Your task to perform on an android device: Show me productivity apps on the Play Store Image 0: 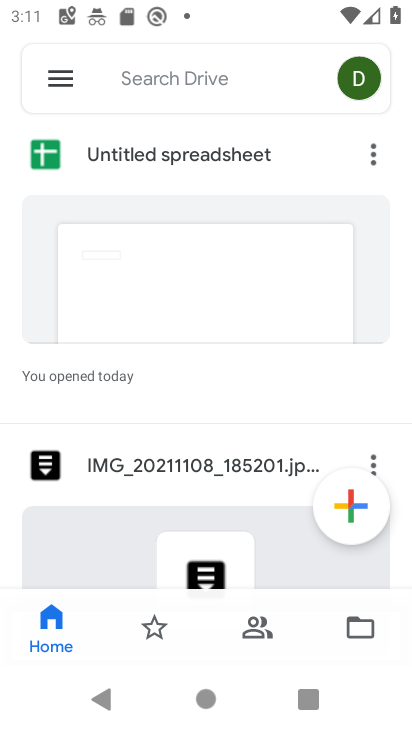
Step 0: press back button
Your task to perform on an android device: Show me productivity apps on the Play Store Image 1: 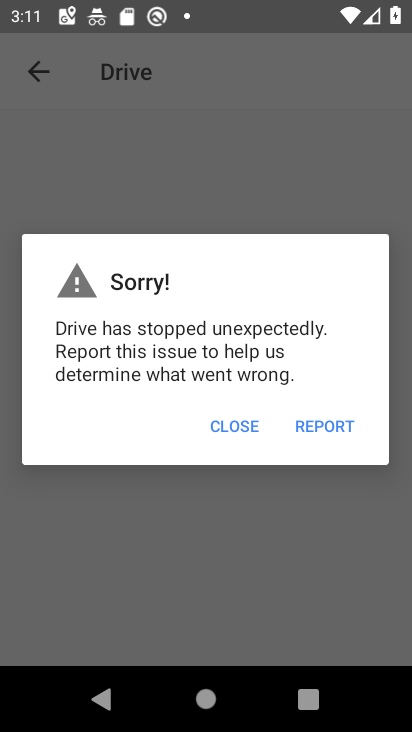
Step 1: press home button
Your task to perform on an android device: Show me productivity apps on the Play Store Image 2: 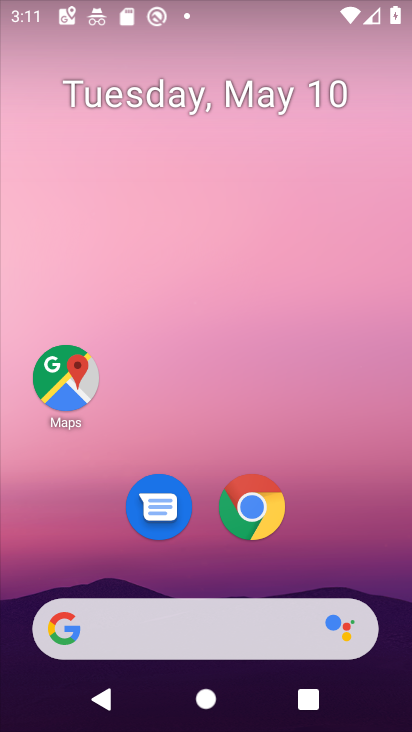
Step 2: drag from (163, 578) to (178, 222)
Your task to perform on an android device: Show me productivity apps on the Play Store Image 3: 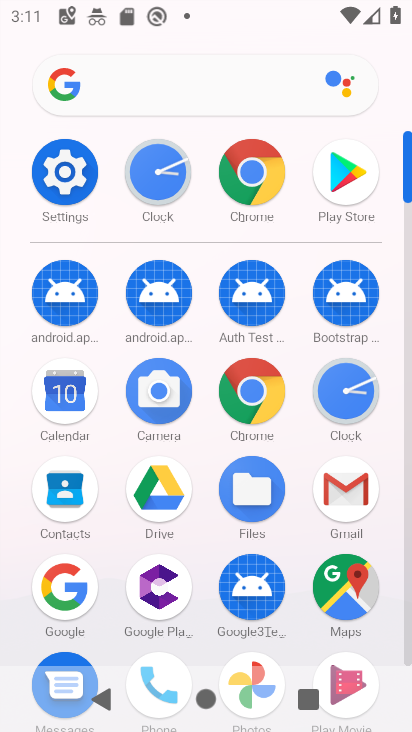
Step 3: drag from (200, 553) to (181, 293)
Your task to perform on an android device: Show me productivity apps on the Play Store Image 4: 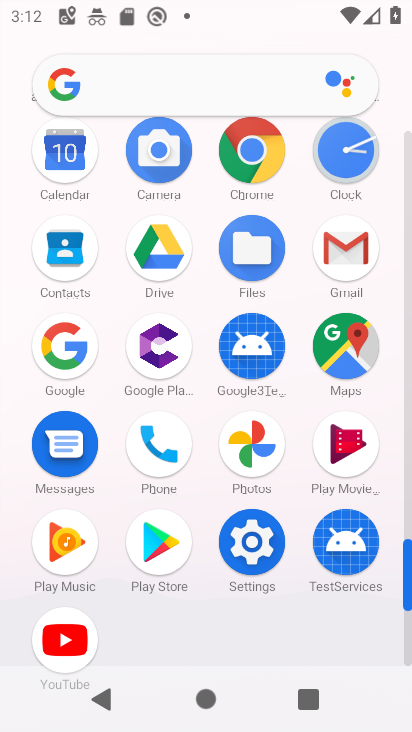
Step 4: click (156, 545)
Your task to perform on an android device: Show me productivity apps on the Play Store Image 5: 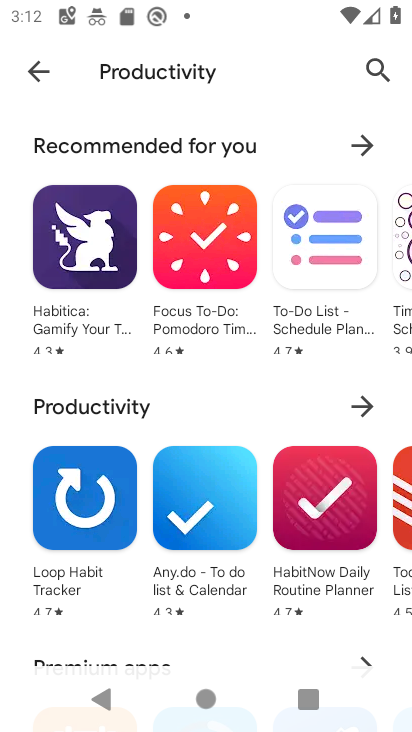
Step 5: click (34, 69)
Your task to perform on an android device: Show me productivity apps on the Play Store Image 6: 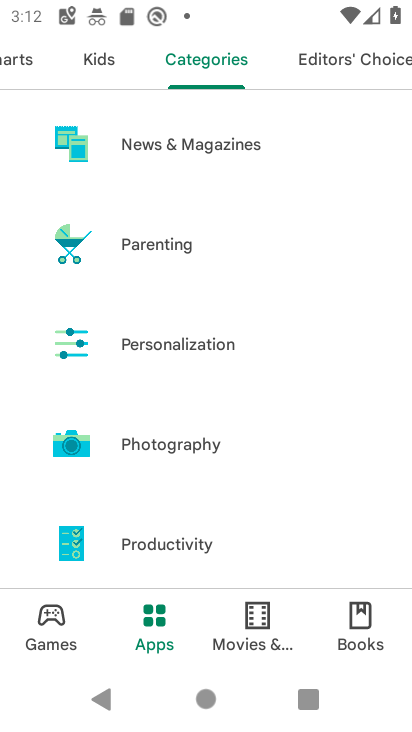
Step 6: click (177, 544)
Your task to perform on an android device: Show me productivity apps on the Play Store Image 7: 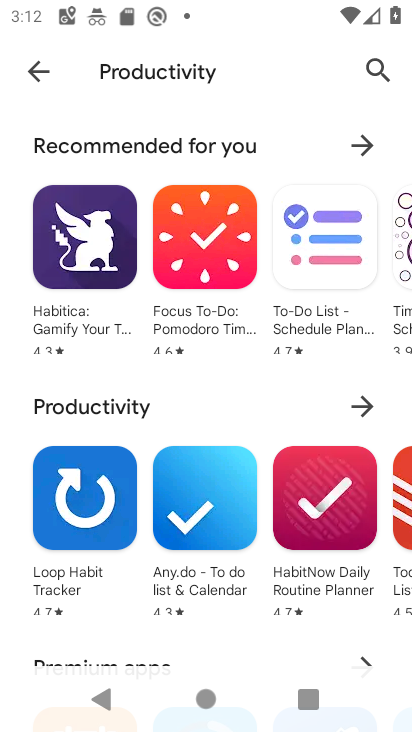
Step 7: task complete